Your task to perform on an android device: Go to notification settings Image 0: 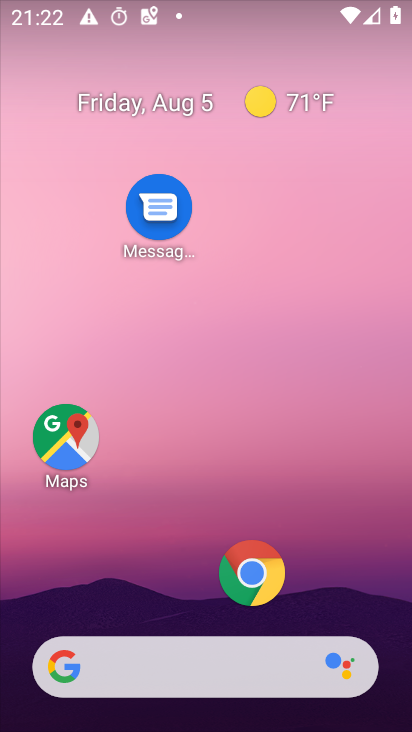
Step 0: drag from (199, 610) to (247, 36)
Your task to perform on an android device: Go to notification settings Image 1: 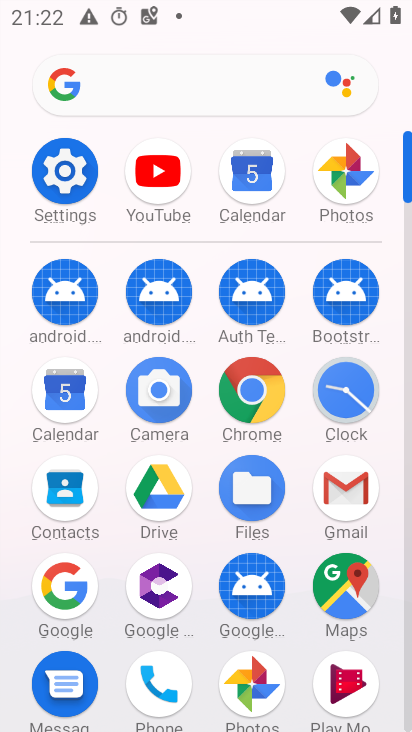
Step 1: click (61, 160)
Your task to perform on an android device: Go to notification settings Image 2: 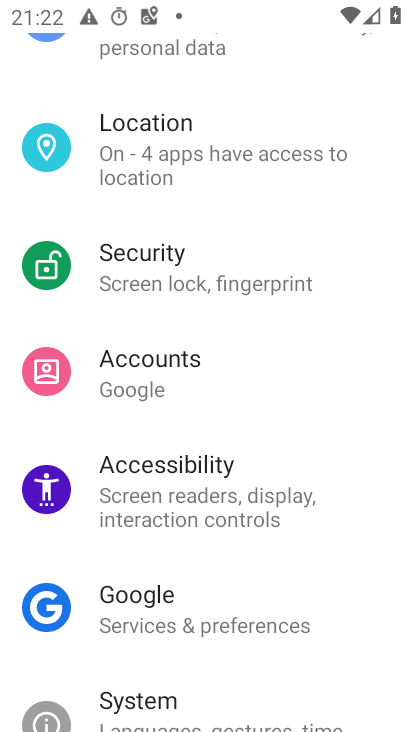
Step 2: drag from (209, 92) to (219, 641)
Your task to perform on an android device: Go to notification settings Image 3: 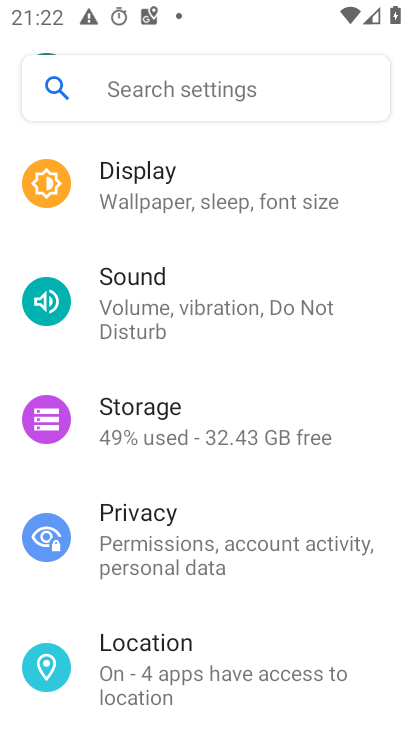
Step 3: drag from (212, 229) to (214, 690)
Your task to perform on an android device: Go to notification settings Image 4: 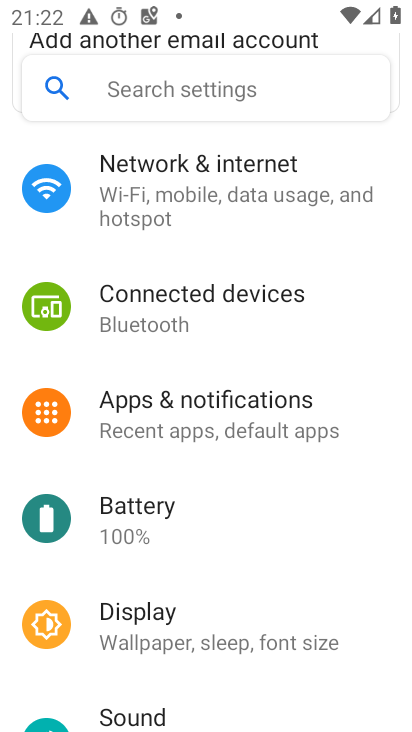
Step 4: click (322, 402)
Your task to perform on an android device: Go to notification settings Image 5: 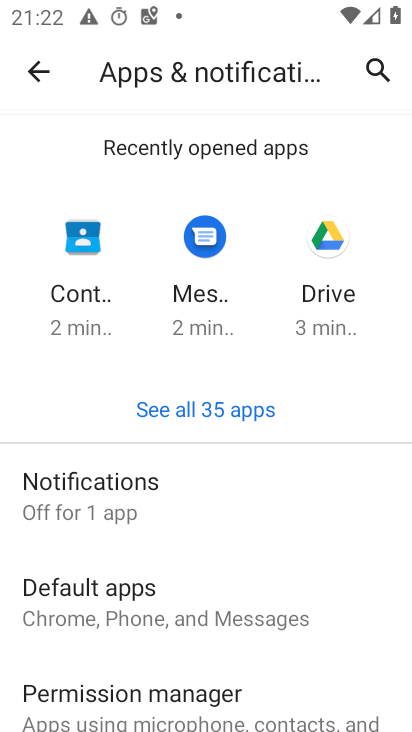
Step 5: click (187, 491)
Your task to perform on an android device: Go to notification settings Image 6: 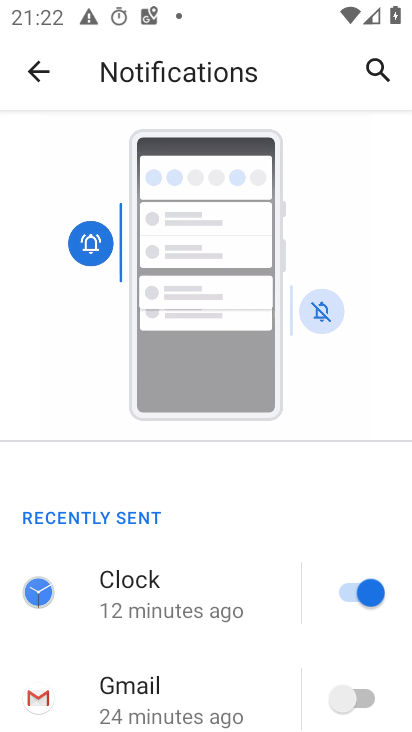
Step 6: drag from (267, 649) to (285, 135)
Your task to perform on an android device: Go to notification settings Image 7: 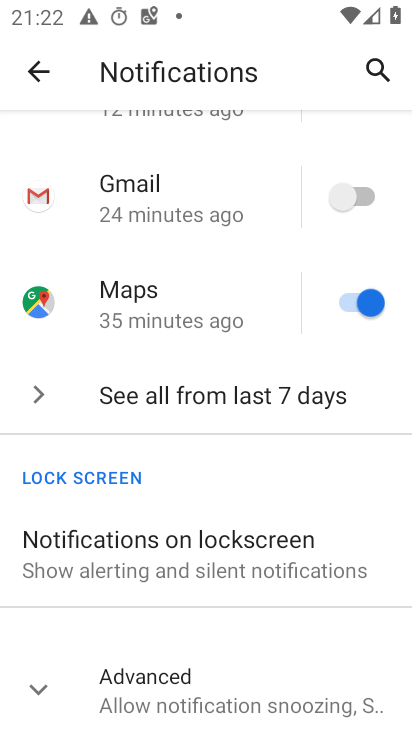
Step 7: click (35, 682)
Your task to perform on an android device: Go to notification settings Image 8: 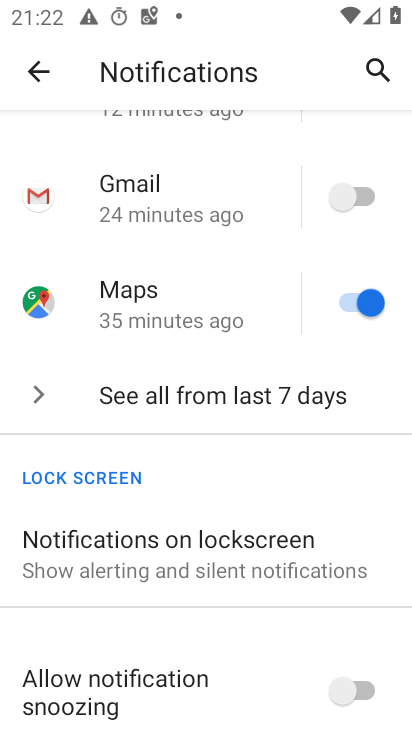
Step 8: task complete